Your task to perform on an android device: Open Yahoo.com Image 0: 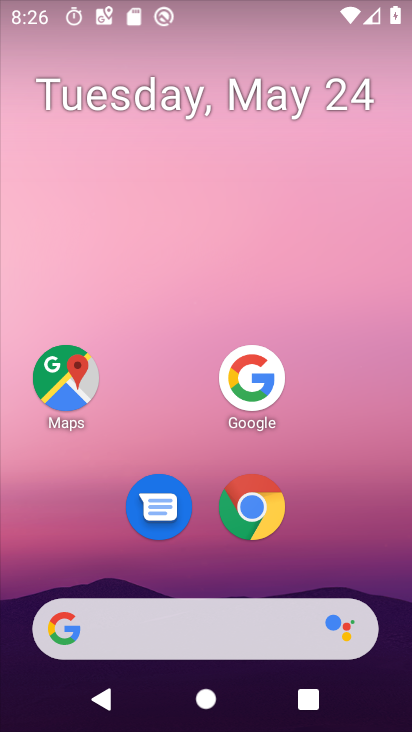
Step 0: click (241, 516)
Your task to perform on an android device: Open Yahoo.com Image 1: 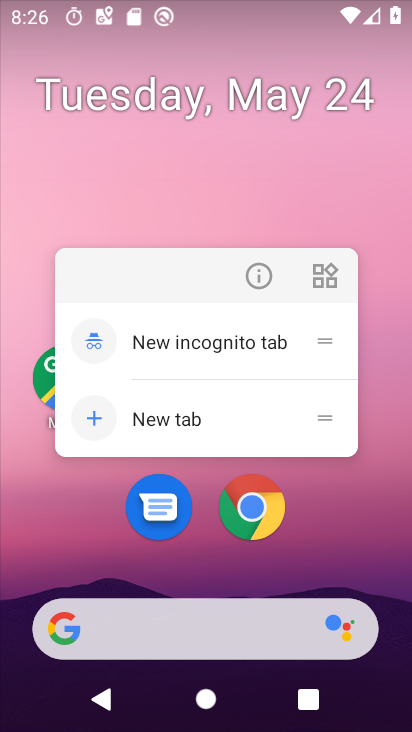
Step 1: click (258, 511)
Your task to perform on an android device: Open Yahoo.com Image 2: 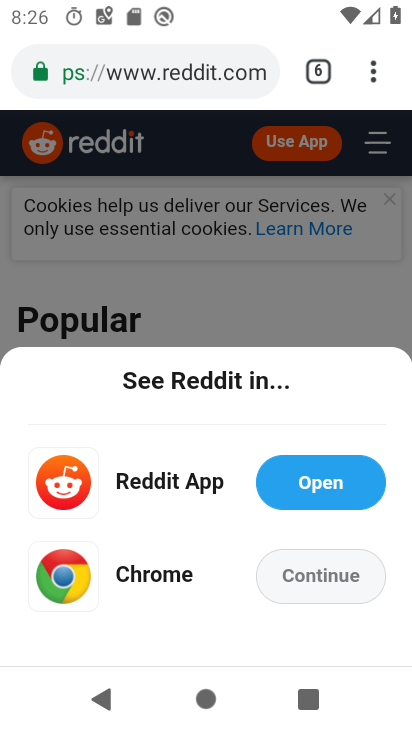
Step 2: drag from (370, 80) to (274, 147)
Your task to perform on an android device: Open Yahoo.com Image 3: 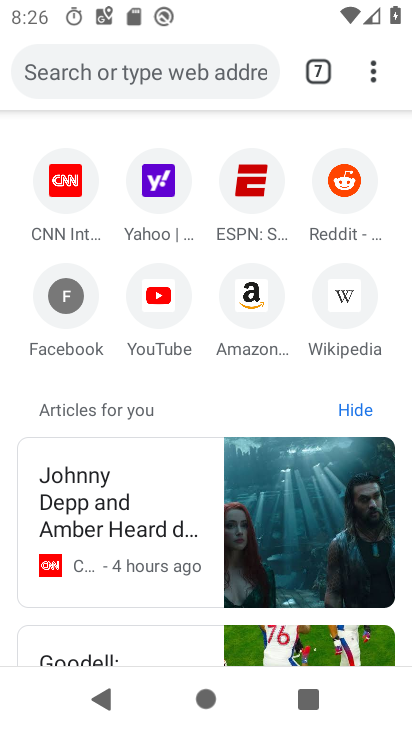
Step 3: click (156, 189)
Your task to perform on an android device: Open Yahoo.com Image 4: 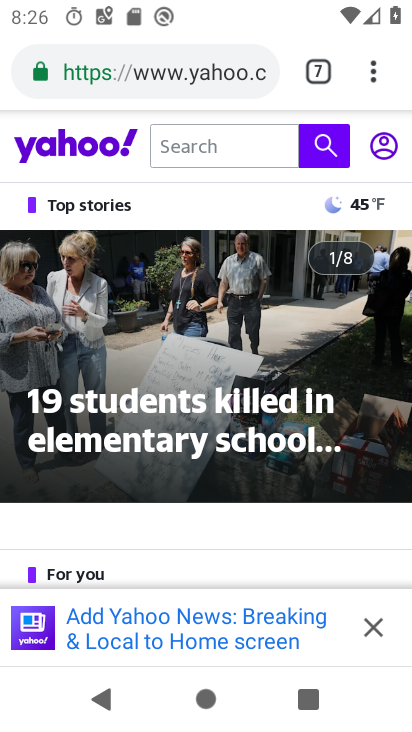
Step 4: task complete